Your task to perform on an android device: Search for the best rated running shoes on Nike.com Image 0: 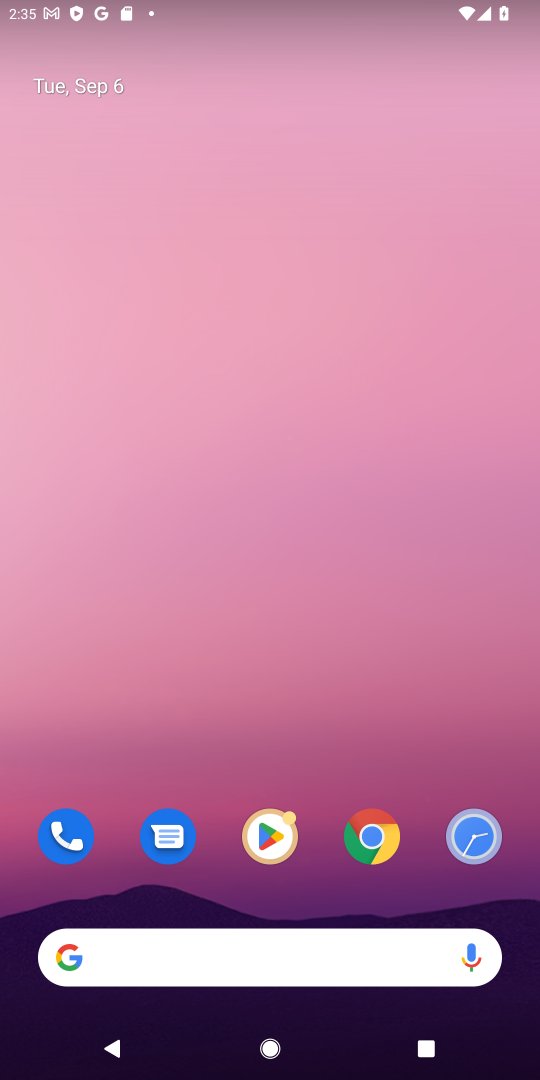
Step 0: click (202, 936)
Your task to perform on an android device: Search for the best rated running shoes on Nike.com Image 1: 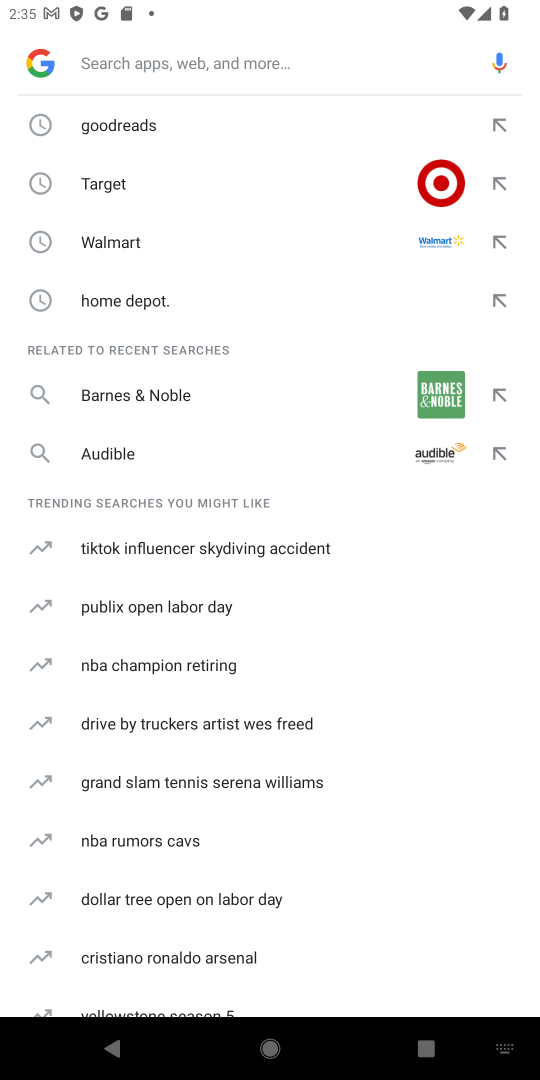
Step 1: type "nike.com"
Your task to perform on an android device: Search for the best rated running shoes on Nike.com Image 2: 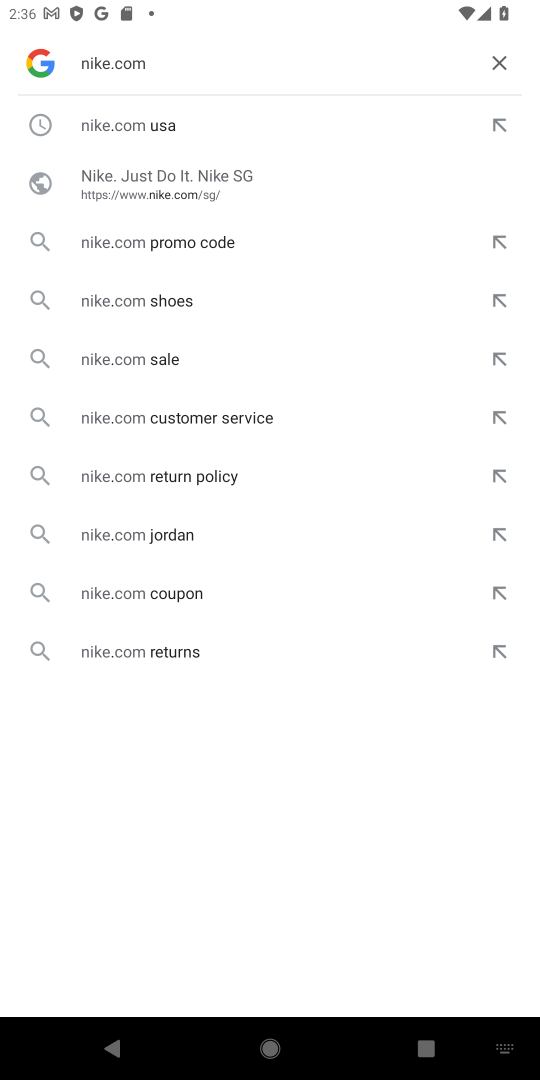
Step 2: click (109, 167)
Your task to perform on an android device: Search for the best rated running shoes on Nike.com Image 3: 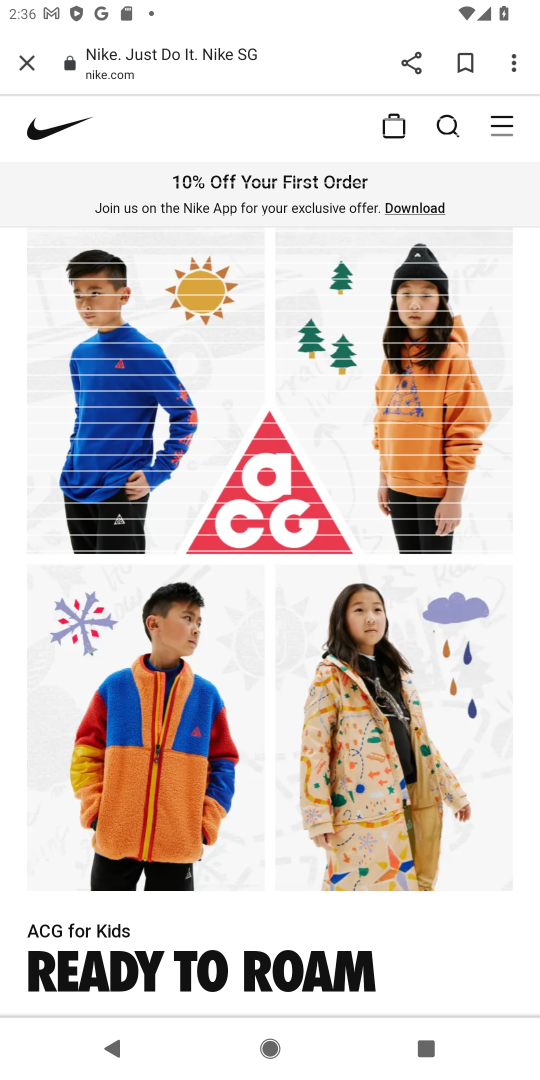
Step 3: click (448, 121)
Your task to perform on an android device: Search for the best rated running shoes on Nike.com Image 4: 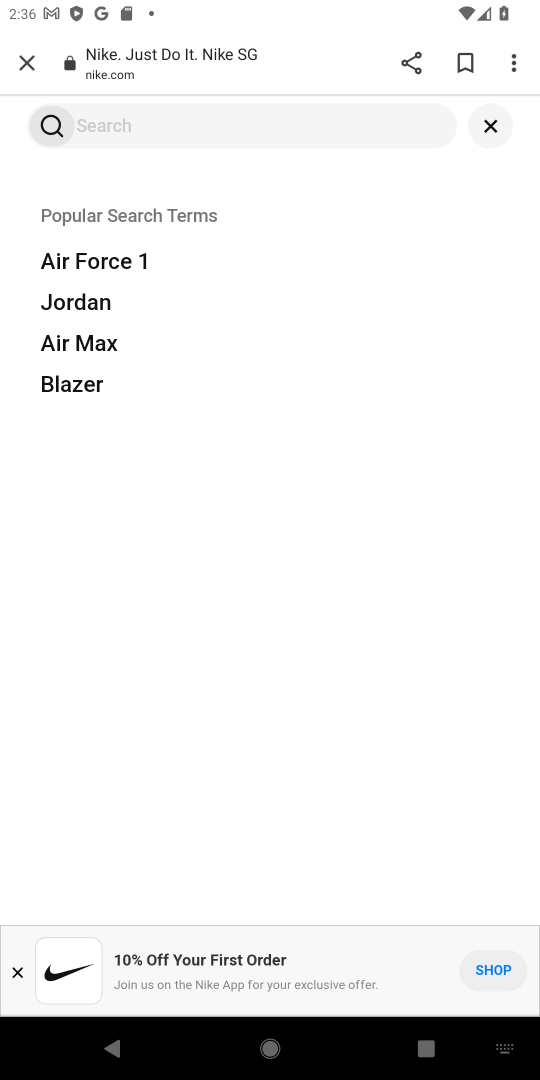
Step 4: type "best rated running shoes"
Your task to perform on an android device: Search for the best rated running shoes on Nike.com Image 5: 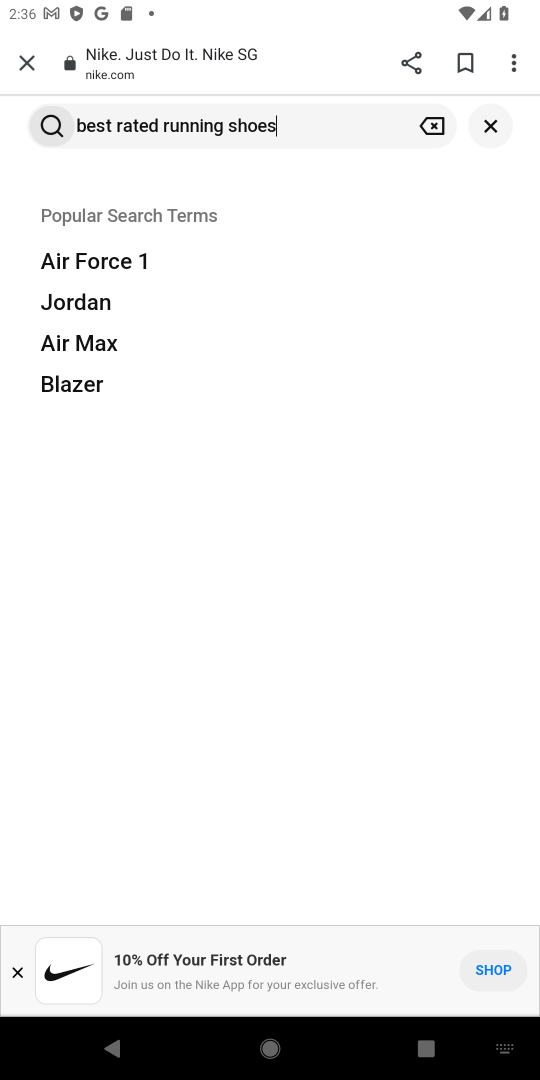
Step 5: click (48, 125)
Your task to perform on an android device: Search for the best rated running shoes on Nike.com Image 6: 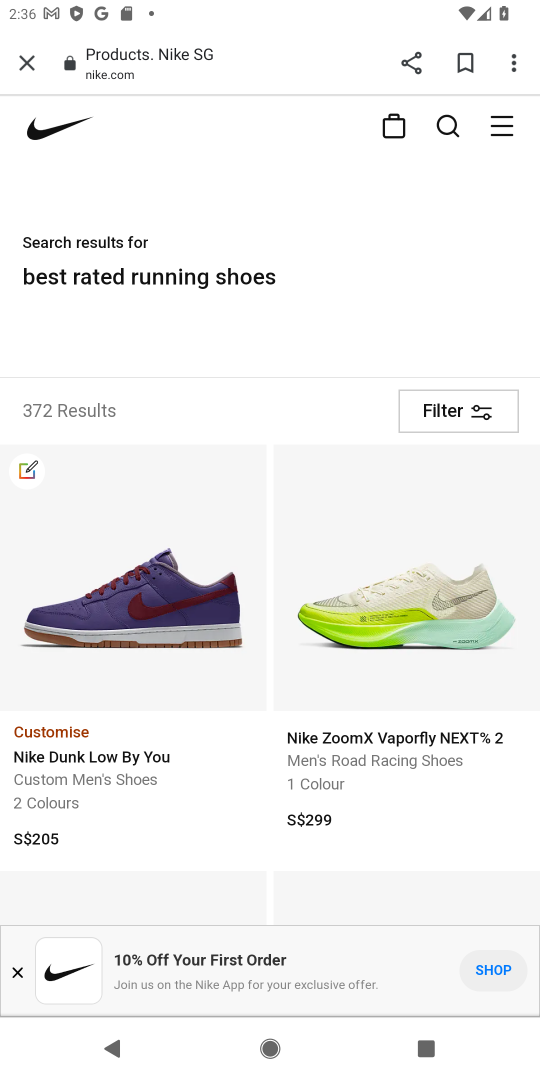
Step 6: task complete